Your task to perform on an android device: toggle translation in the chrome app Image 0: 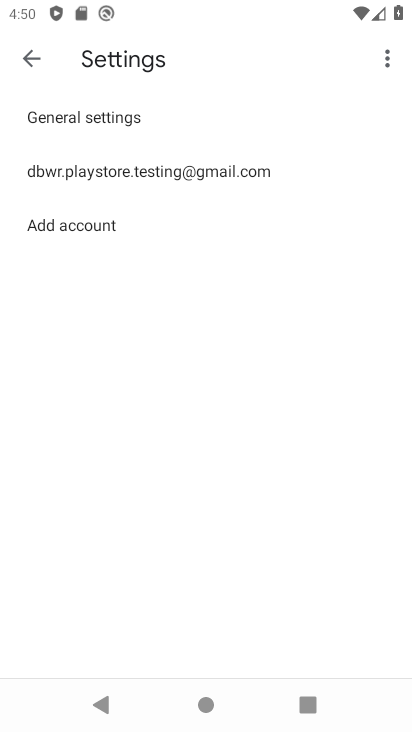
Step 0: press home button
Your task to perform on an android device: toggle translation in the chrome app Image 1: 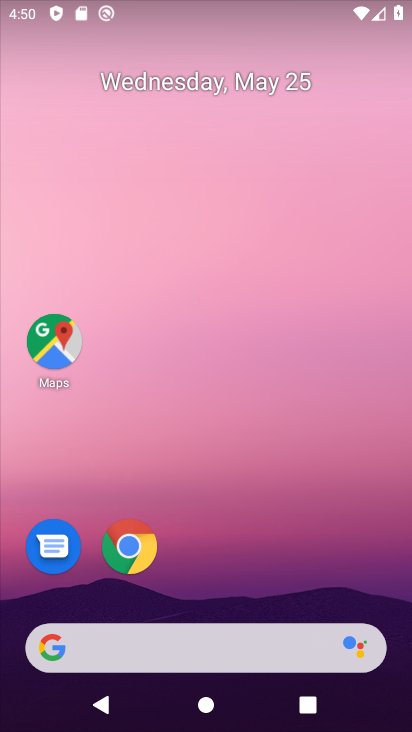
Step 1: click (132, 565)
Your task to perform on an android device: toggle translation in the chrome app Image 2: 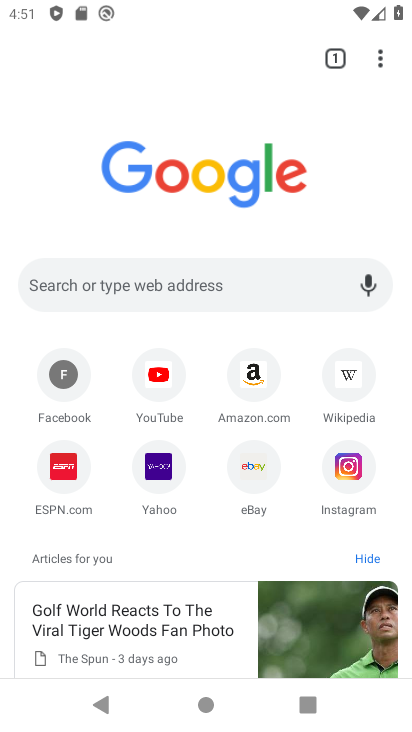
Step 2: click (381, 58)
Your task to perform on an android device: toggle translation in the chrome app Image 3: 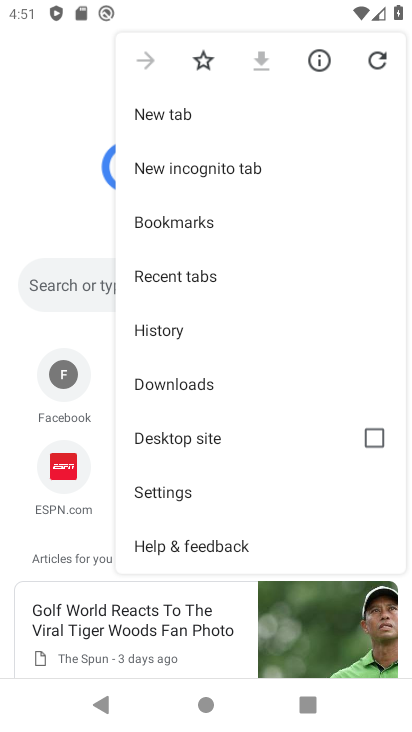
Step 3: click (166, 492)
Your task to perform on an android device: toggle translation in the chrome app Image 4: 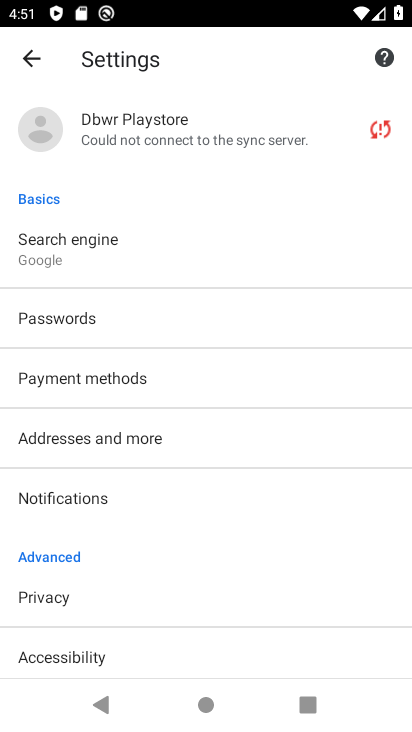
Step 4: drag from (202, 549) to (220, 148)
Your task to perform on an android device: toggle translation in the chrome app Image 5: 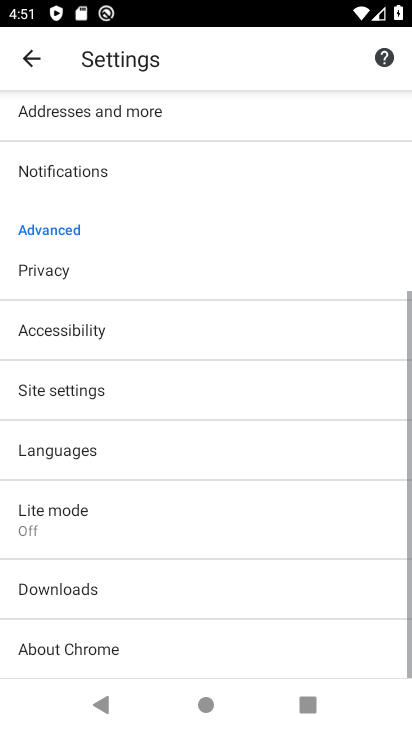
Step 5: click (84, 612)
Your task to perform on an android device: toggle translation in the chrome app Image 6: 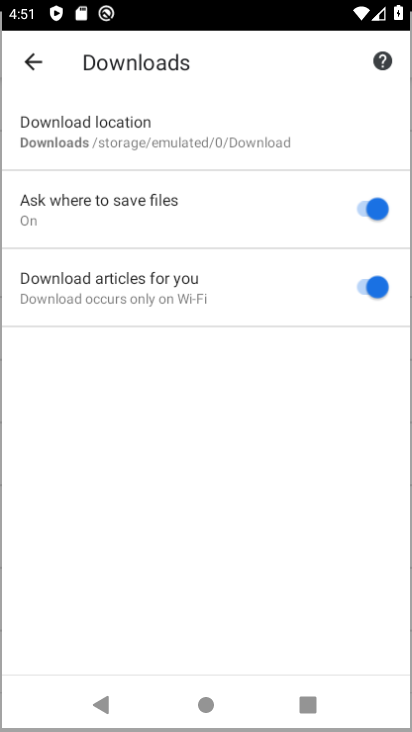
Step 6: click (91, 452)
Your task to perform on an android device: toggle translation in the chrome app Image 7: 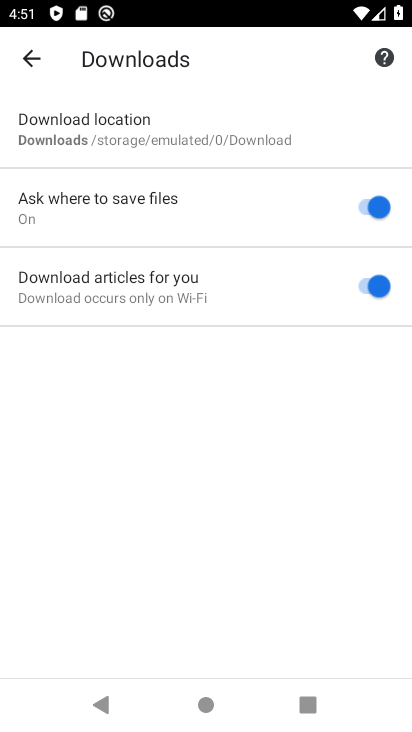
Step 7: press back button
Your task to perform on an android device: toggle translation in the chrome app Image 8: 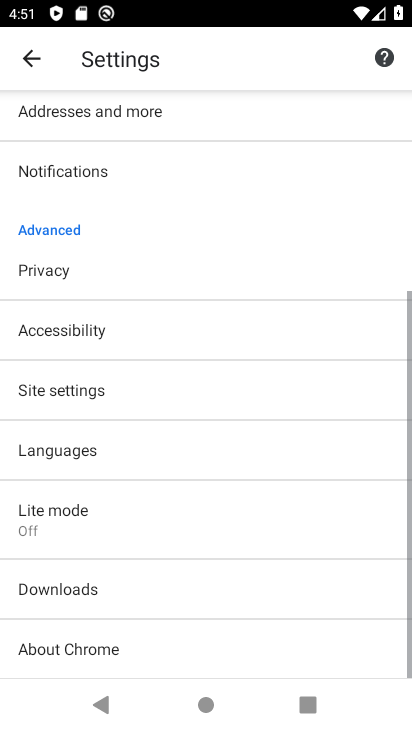
Step 8: click (106, 447)
Your task to perform on an android device: toggle translation in the chrome app Image 9: 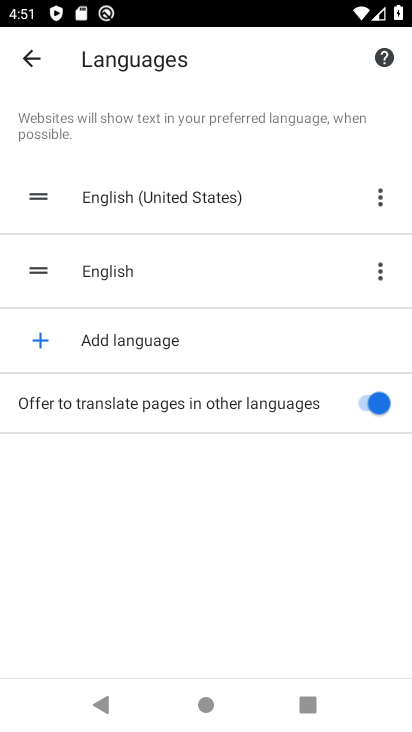
Step 9: click (375, 400)
Your task to perform on an android device: toggle translation in the chrome app Image 10: 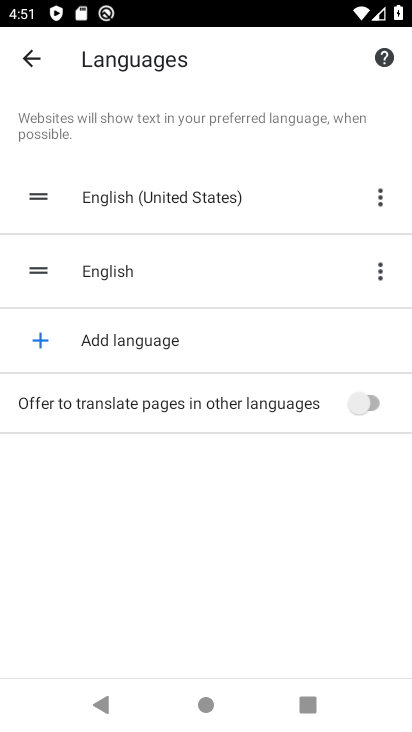
Step 10: task complete